Your task to perform on an android device: turn on the 12-hour format for clock Image 0: 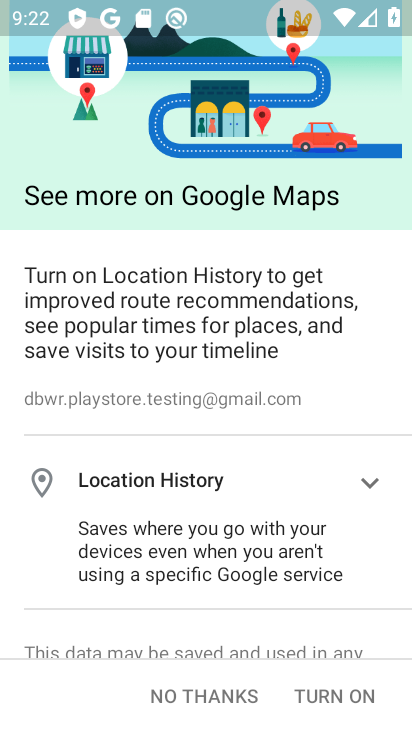
Step 0: press home button
Your task to perform on an android device: turn on the 12-hour format for clock Image 1: 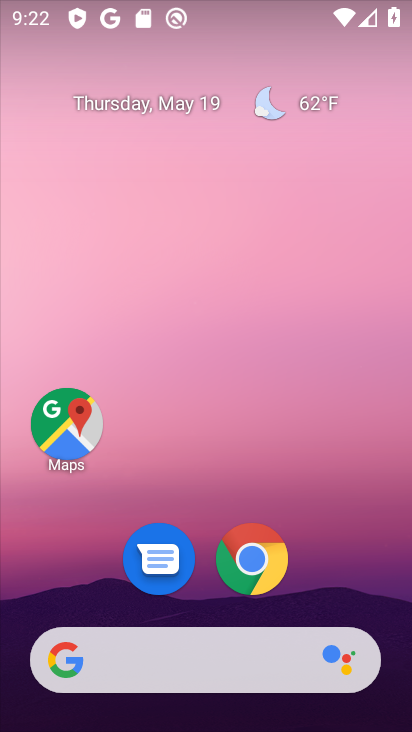
Step 1: drag from (342, 558) to (207, 176)
Your task to perform on an android device: turn on the 12-hour format for clock Image 2: 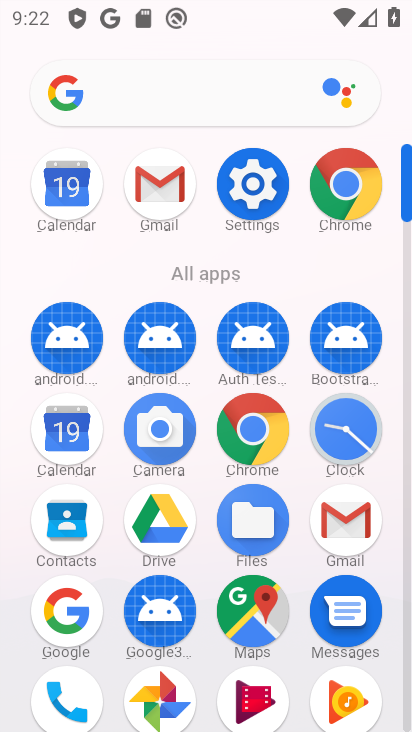
Step 2: click (328, 423)
Your task to perform on an android device: turn on the 12-hour format for clock Image 3: 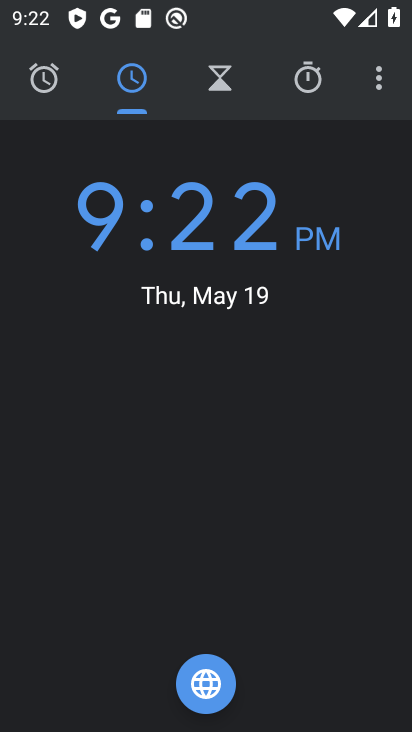
Step 3: click (383, 74)
Your task to perform on an android device: turn on the 12-hour format for clock Image 4: 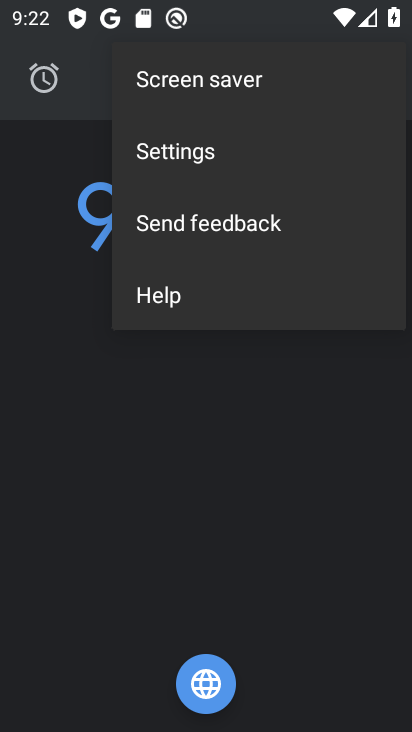
Step 4: click (193, 154)
Your task to perform on an android device: turn on the 12-hour format for clock Image 5: 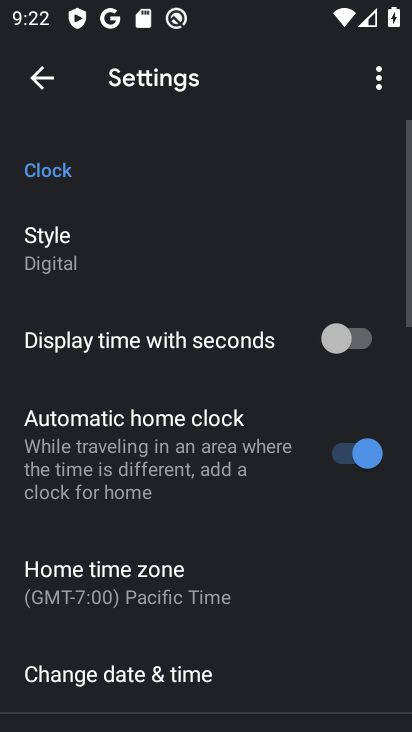
Step 5: drag from (205, 571) to (148, 259)
Your task to perform on an android device: turn on the 12-hour format for clock Image 6: 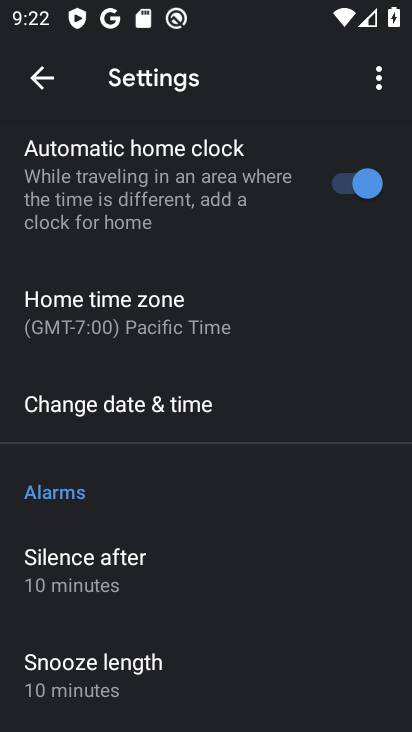
Step 6: click (134, 401)
Your task to perform on an android device: turn on the 12-hour format for clock Image 7: 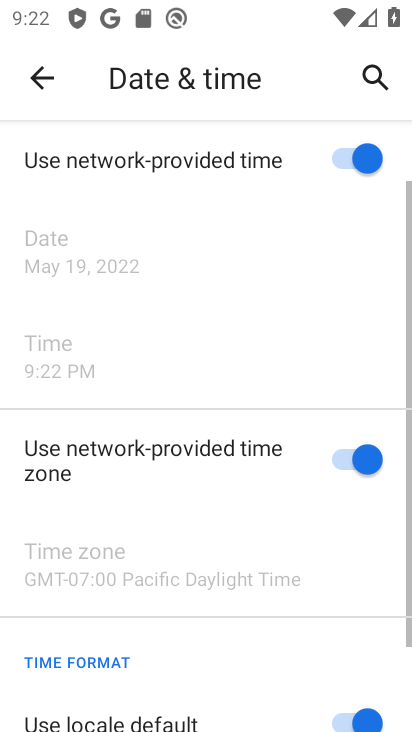
Step 7: task complete